Your task to perform on an android device: turn smart compose on in the gmail app Image 0: 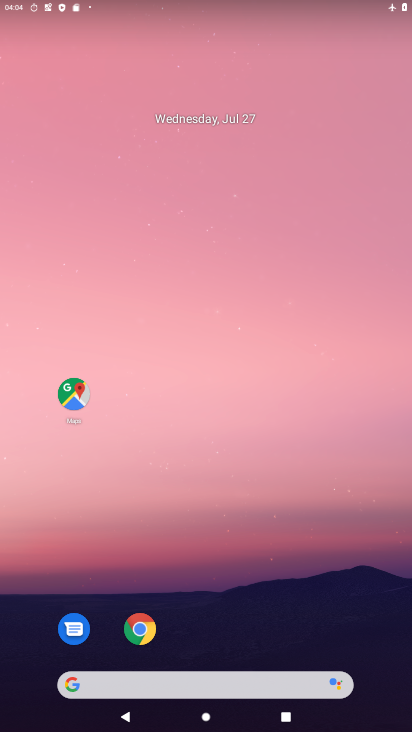
Step 0: drag from (336, 624) to (206, 28)
Your task to perform on an android device: turn smart compose on in the gmail app Image 1: 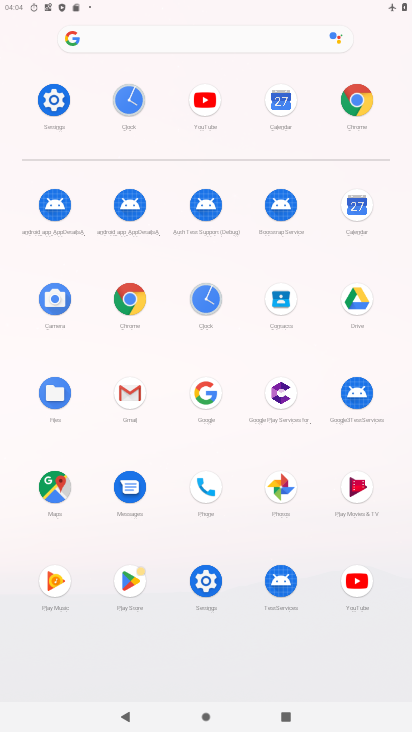
Step 1: click (130, 389)
Your task to perform on an android device: turn smart compose on in the gmail app Image 2: 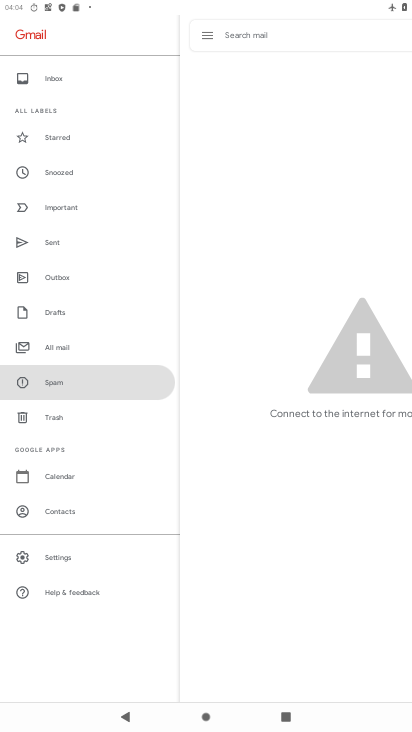
Step 2: click (66, 555)
Your task to perform on an android device: turn smart compose on in the gmail app Image 3: 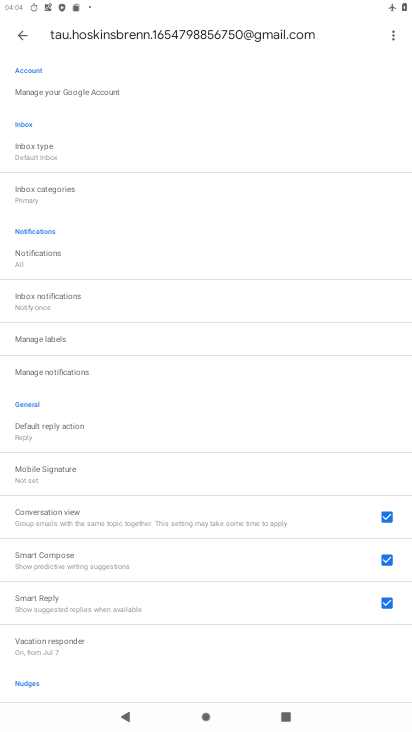
Step 3: task complete